Your task to perform on an android device: open the mobile data screen to see how much data has been used Image 0: 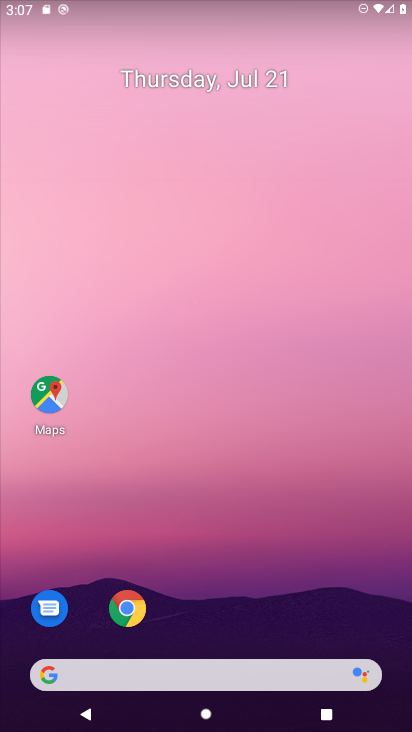
Step 0: click (177, 265)
Your task to perform on an android device: open the mobile data screen to see how much data has been used Image 1: 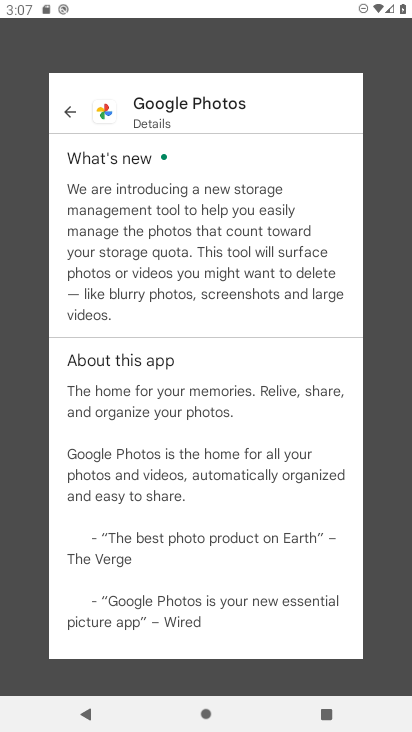
Step 1: press home button
Your task to perform on an android device: open the mobile data screen to see how much data has been used Image 2: 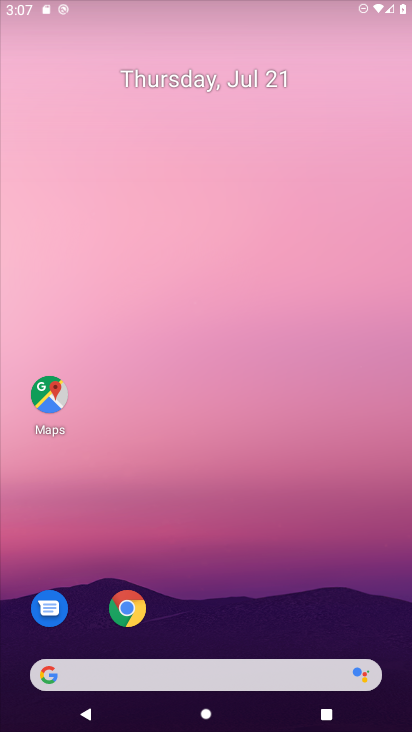
Step 2: drag from (220, 569) to (215, 120)
Your task to perform on an android device: open the mobile data screen to see how much data has been used Image 3: 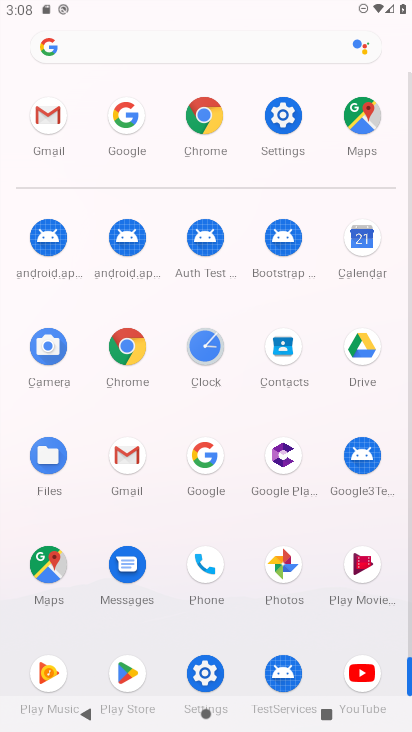
Step 3: click (285, 125)
Your task to perform on an android device: open the mobile data screen to see how much data has been used Image 4: 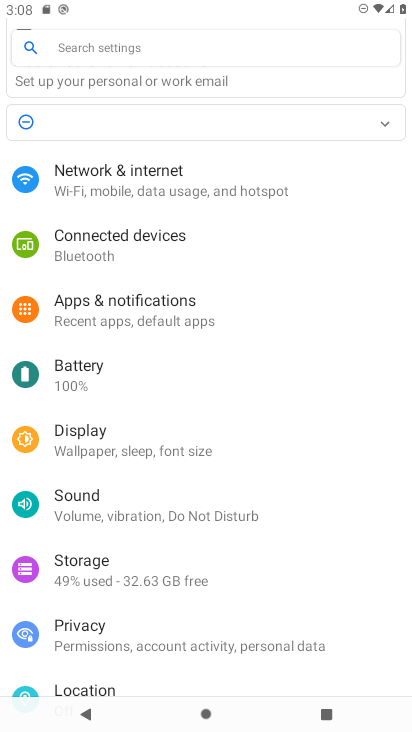
Step 4: click (240, 176)
Your task to perform on an android device: open the mobile data screen to see how much data has been used Image 5: 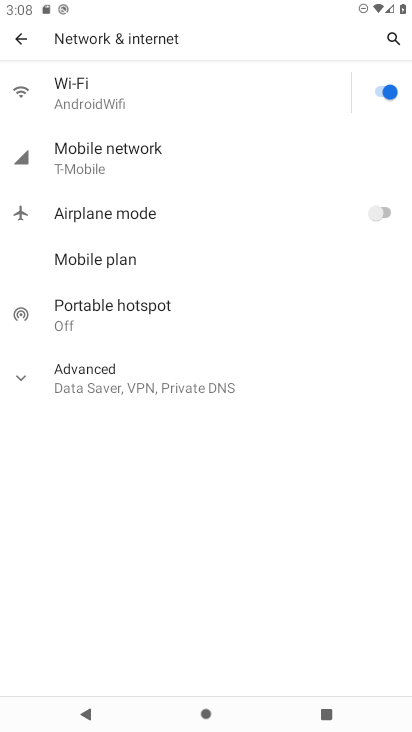
Step 5: click (160, 157)
Your task to perform on an android device: open the mobile data screen to see how much data has been used Image 6: 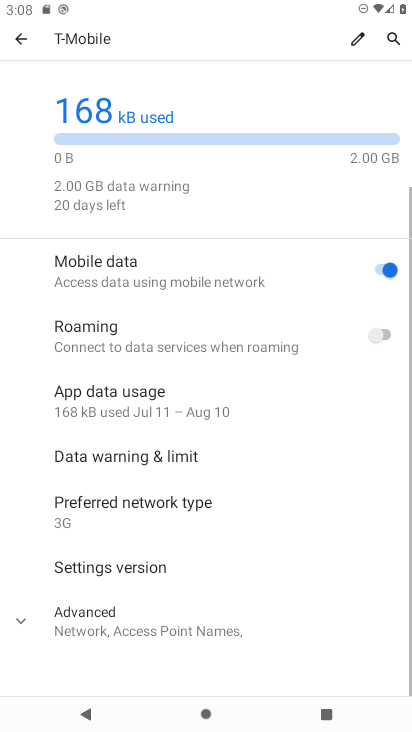
Step 6: drag from (160, 157) to (192, 268)
Your task to perform on an android device: open the mobile data screen to see how much data has been used Image 7: 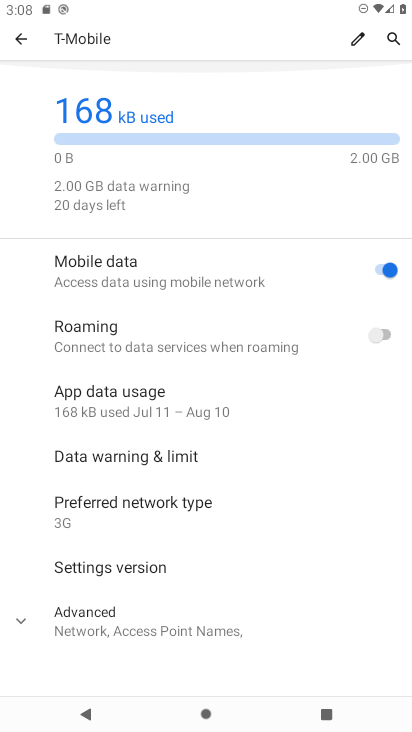
Step 7: click (165, 371)
Your task to perform on an android device: open the mobile data screen to see how much data has been used Image 8: 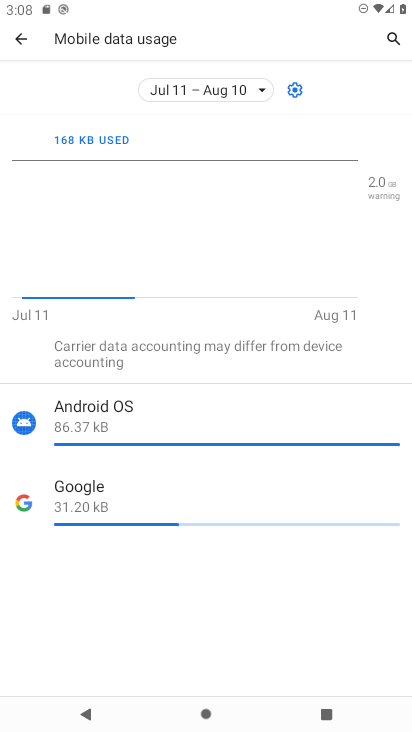
Step 8: task complete